Your task to perform on an android device: turn on translation in the chrome app Image 0: 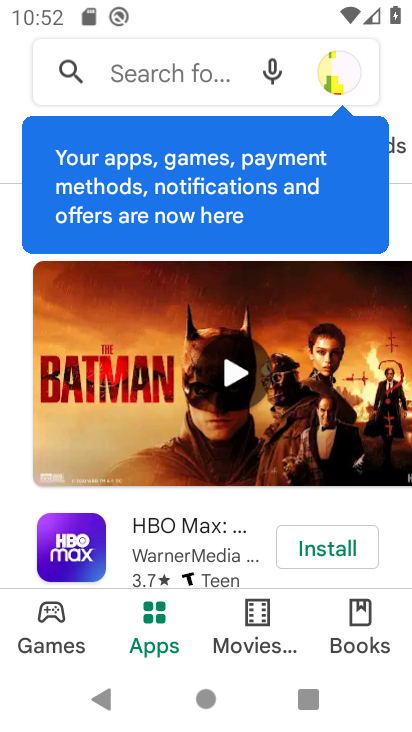
Step 0: click (197, 705)
Your task to perform on an android device: turn on translation in the chrome app Image 1: 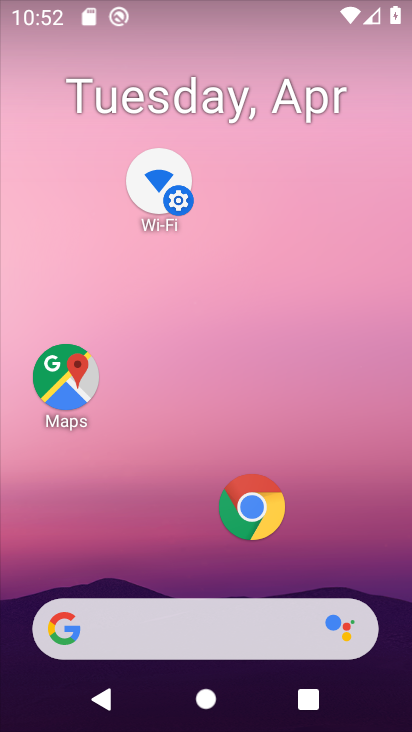
Step 1: click (259, 501)
Your task to perform on an android device: turn on translation in the chrome app Image 2: 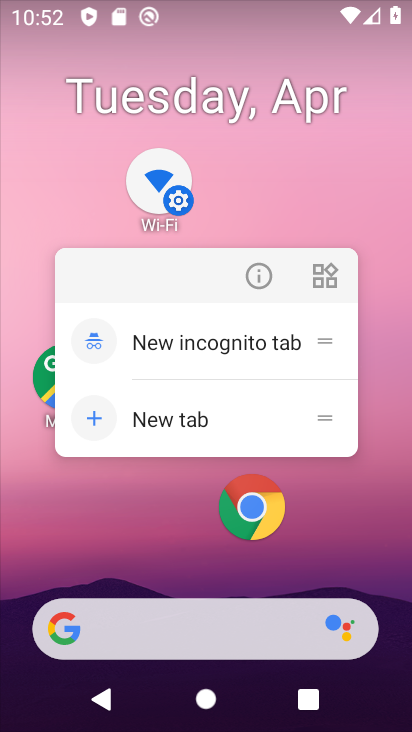
Step 2: click (252, 517)
Your task to perform on an android device: turn on translation in the chrome app Image 3: 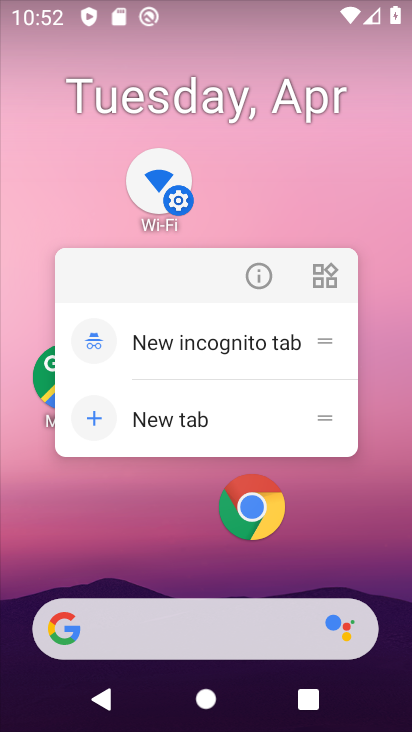
Step 3: click (252, 503)
Your task to perform on an android device: turn on translation in the chrome app Image 4: 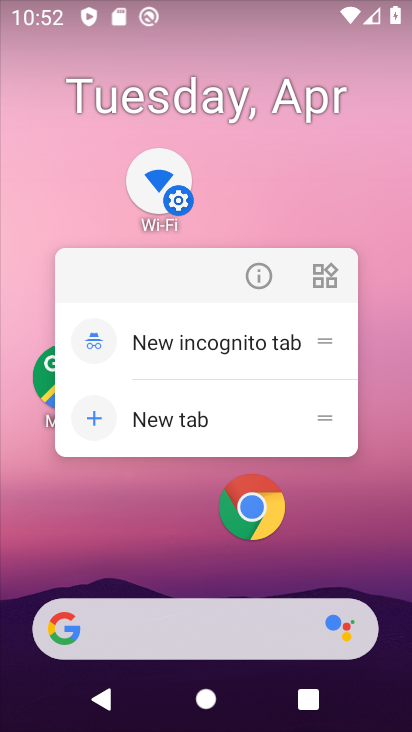
Step 4: click (252, 502)
Your task to perform on an android device: turn on translation in the chrome app Image 5: 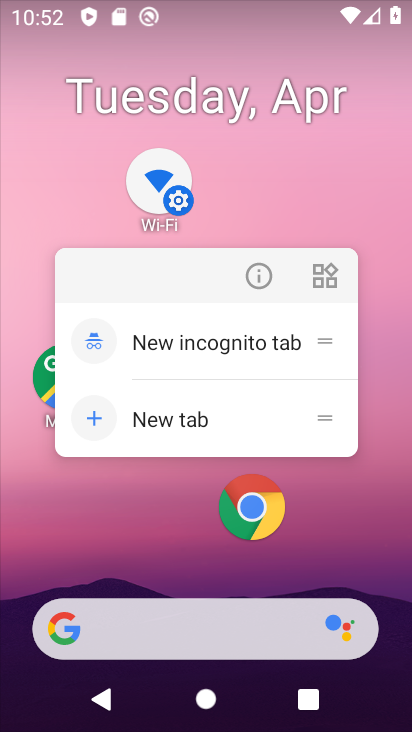
Step 5: click (252, 502)
Your task to perform on an android device: turn on translation in the chrome app Image 6: 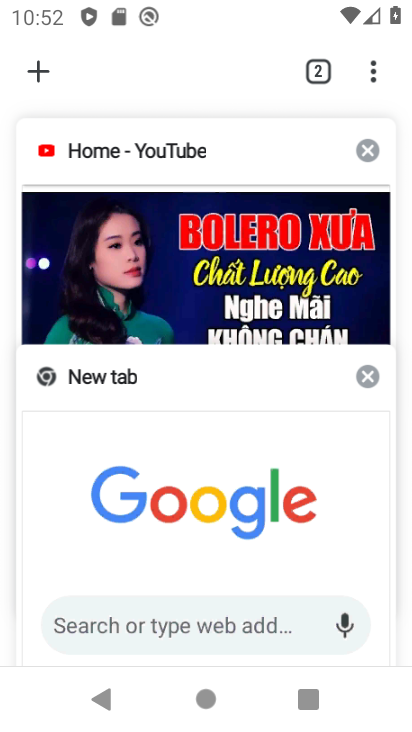
Step 6: click (375, 67)
Your task to perform on an android device: turn on translation in the chrome app Image 7: 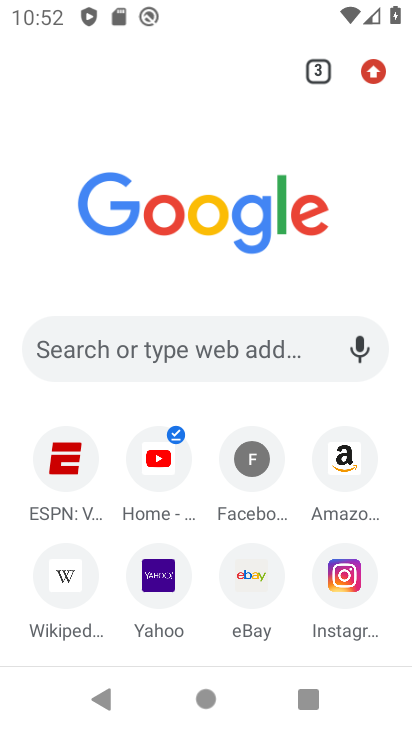
Step 7: click (322, 74)
Your task to perform on an android device: turn on translation in the chrome app Image 8: 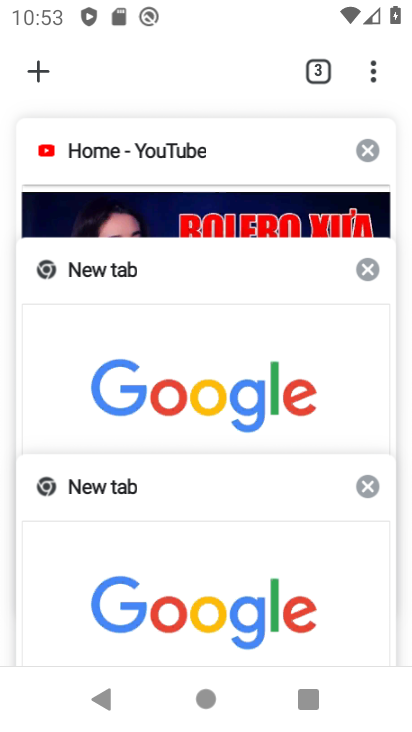
Step 8: click (371, 147)
Your task to perform on an android device: turn on translation in the chrome app Image 9: 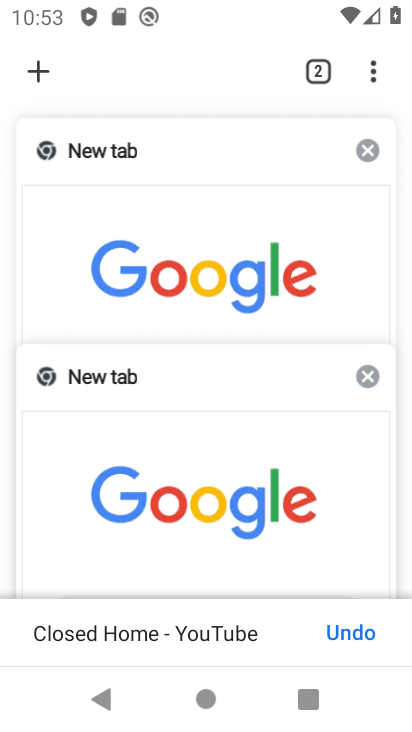
Step 9: click (370, 147)
Your task to perform on an android device: turn on translation in the chrome app Image 10: 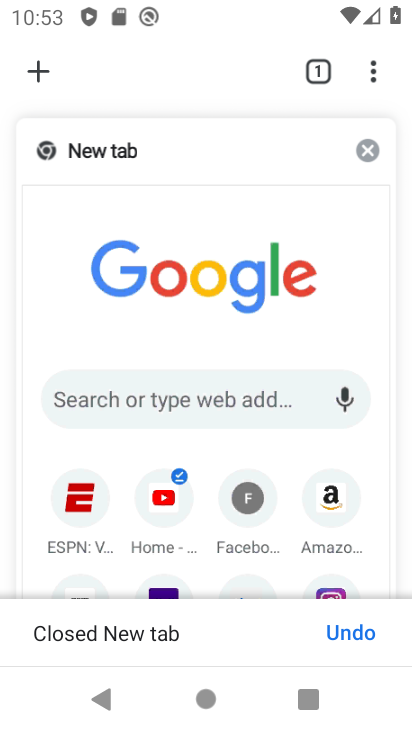
Step 10: click (369, 65)
Your task to perform on an android device: turn on translation in the chrome app Image 11: 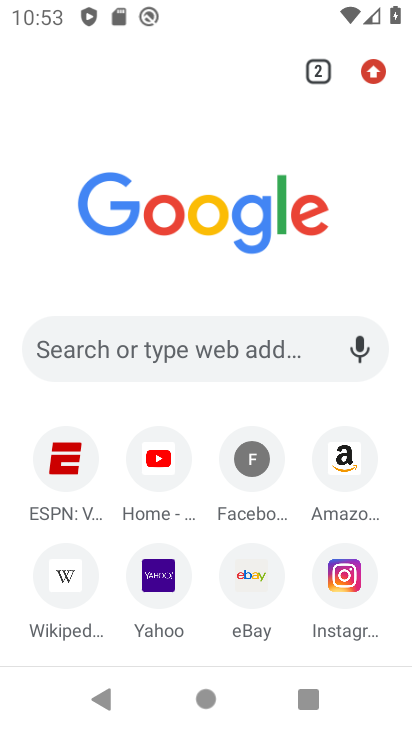
Step 11: click (318, 75)
Your task to perform on an android device: turn on translation in the chrome app Image 12: 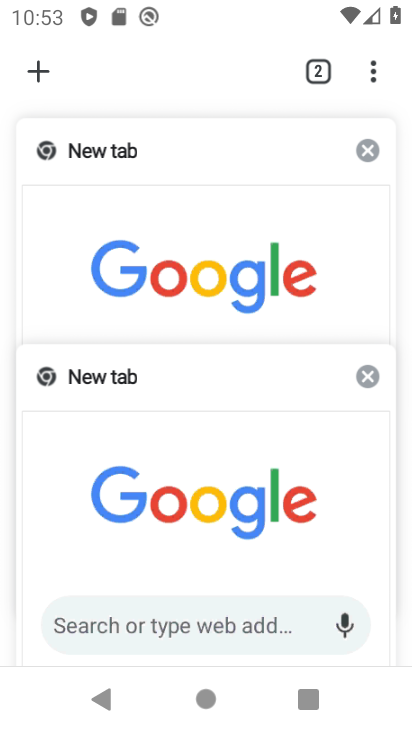
Step 12: click (368, 161)
Your task to perform on an android device: turn on translation in the chrome app Image 13: 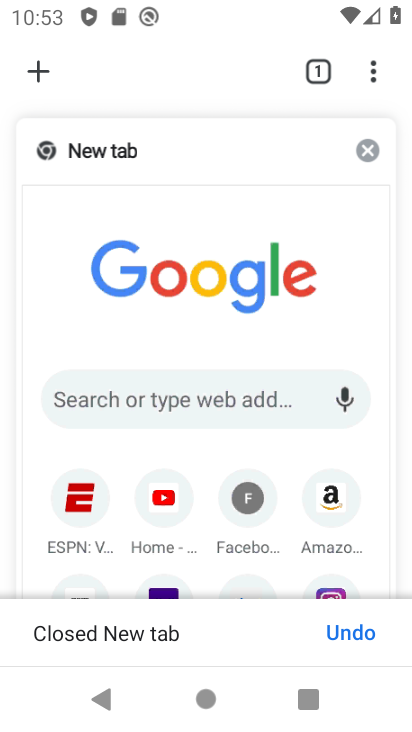
Step 13: click (369, 73)
Your task to perform on an android device: turn on translation in the chrome app Image 14: 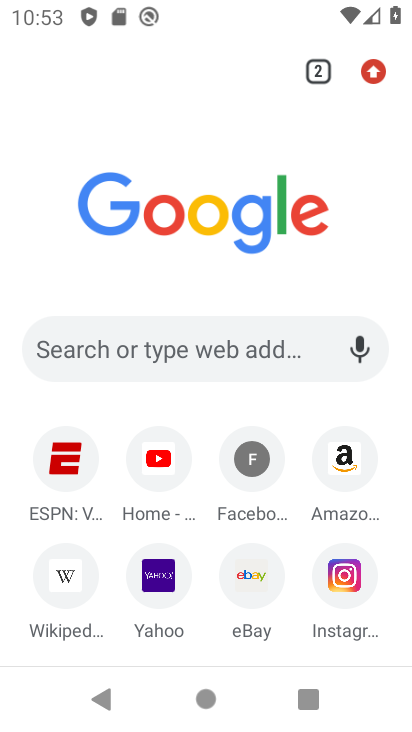
Step 14: click (315, 80)
Your task to perform on an android device: turn on translation in the chrome app Image 15: 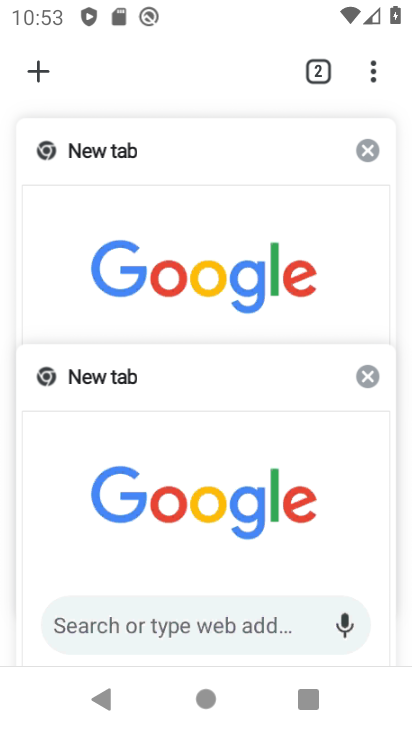
Step 15: click (362, 152)
Your task to perform on an android device: turn on translation in the chrome app Image 16: 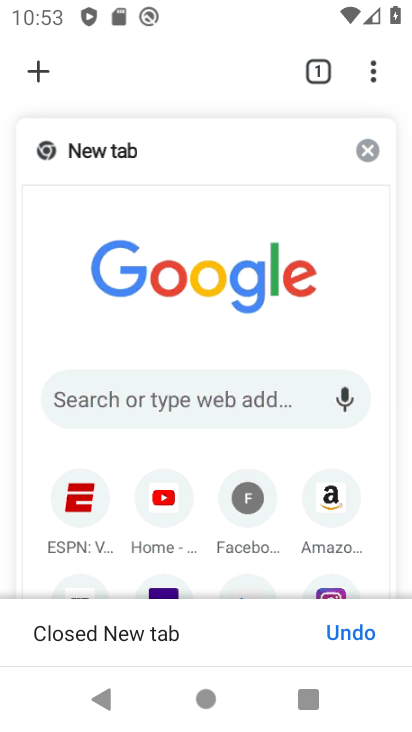
Step 16: click (371, 65)
Your task to perform on an android device: turn on translation in the chrome app Image 17: 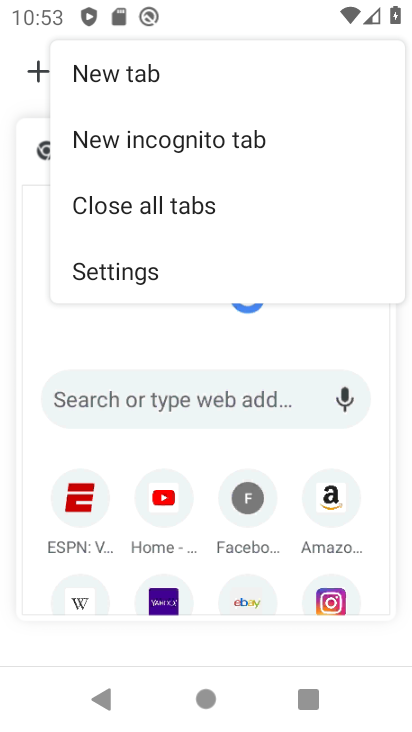
Step 17: click (140, 265)
Your task to perform on an android device: turn on translation in the chrome app Image 18: 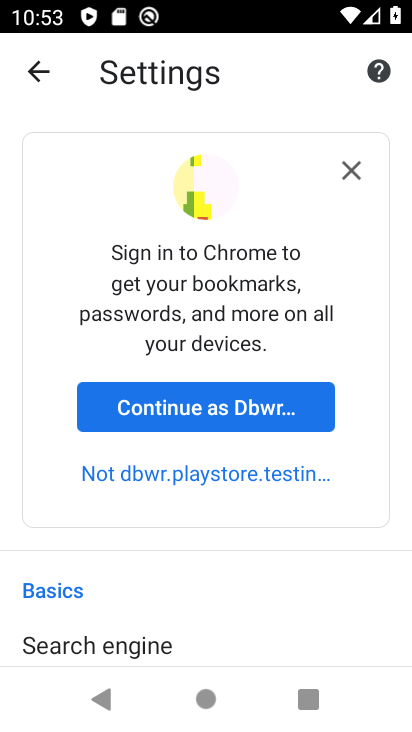
Step 18: click (347, 175)
Your task to perform on an android device: turn on translation in the chrome app Image 19: 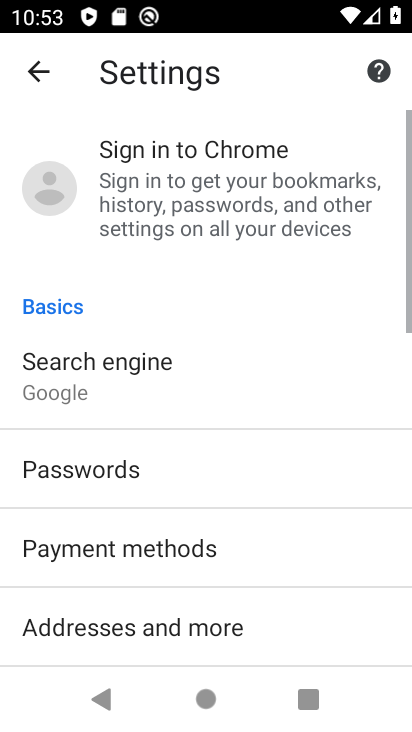
Step 19: drag from (107, 593) to (270, 266)
Your task to perform on an android device: turn on translation in the chrome app Image 20: 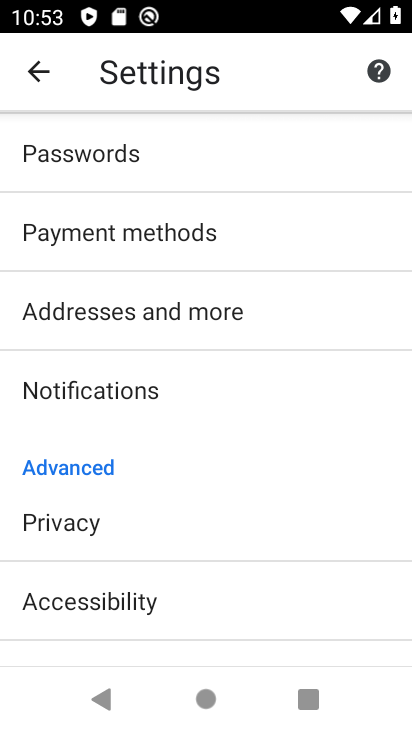
Step 20: drag from (148, 582) to (275, 265)
Your task to perform on an android device: turn on translation in the chrome app Image 21: 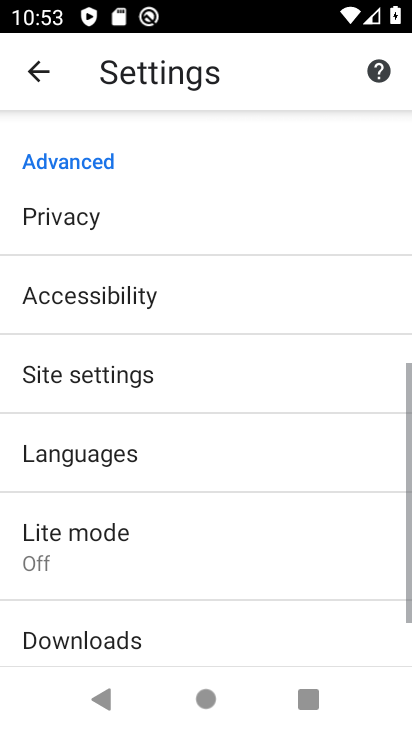
Step 21: click (136, 447)
Your task to perform on an android device: turn on translation in the chrome app Image 22: 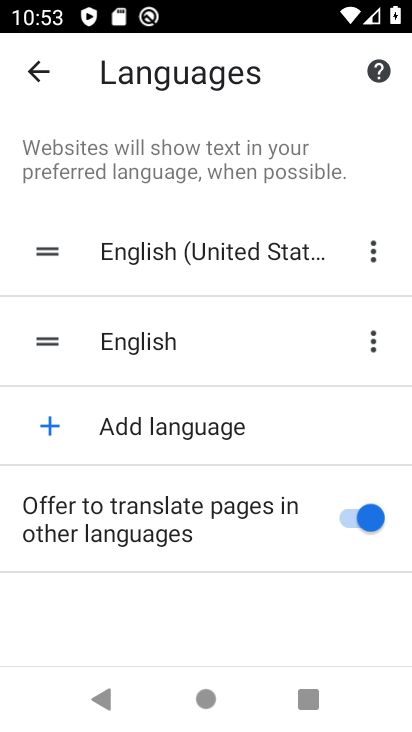
Step 22: task complete